Your task to perform on an android device: Go to location settings Image 0: 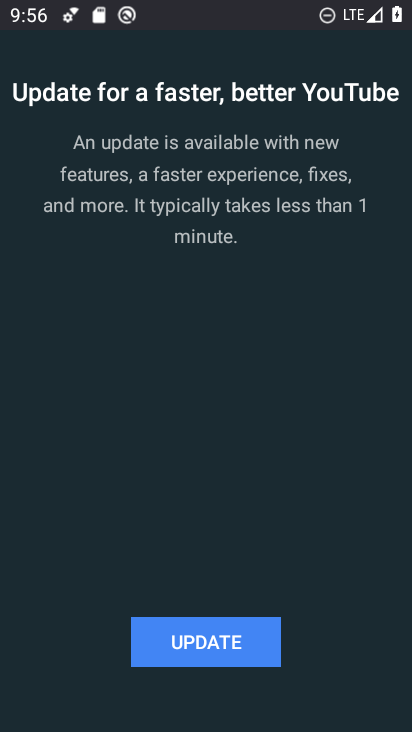
Step 0: press home button
Your task to perform on an android device: Go to location settings Image 1: 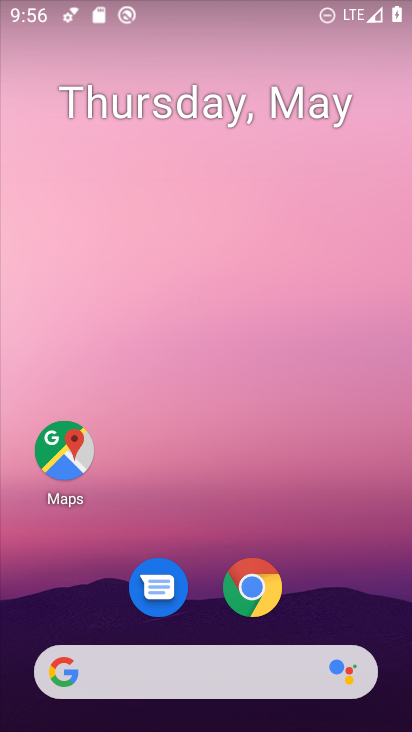
Step 1: drag from (325, 623) to (319, 16)
Your task to perform on an android device: Go to location settings Image 2: 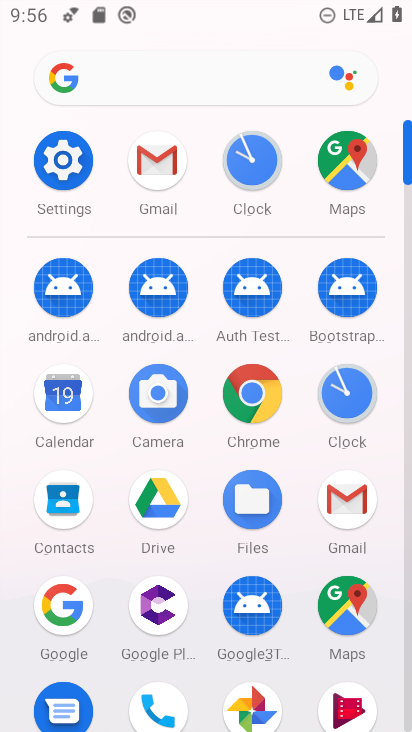
Step 2: click (64, 161)
Your task to perform on an android device: Go to location settings Image 3: 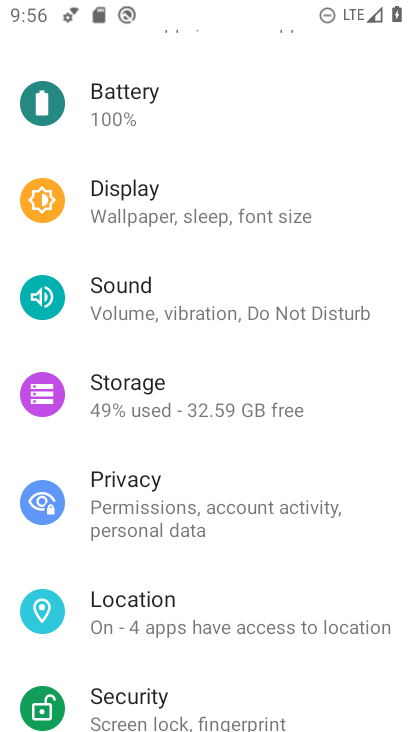
Step 3: click (149, 593)
Your task to perform on an android device: Go to location settings Image 4: 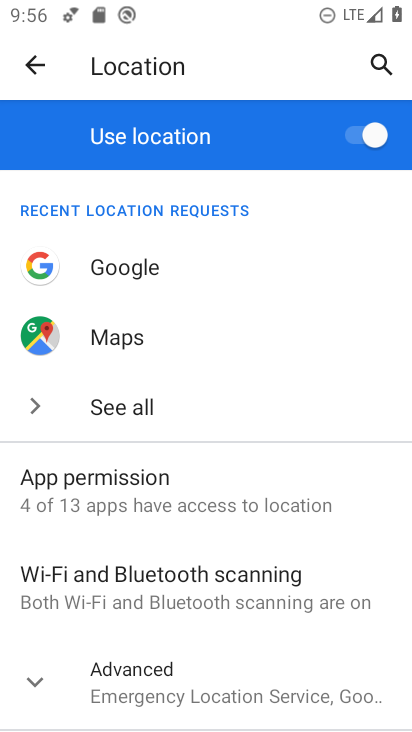
Step 4: task complete